Your task to perform on an android device: Open sound settings Image 0: 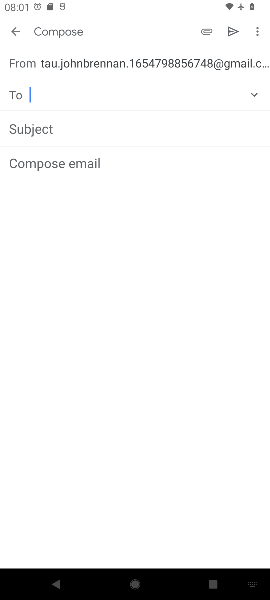
Step 0: press home button
Your task to perform on an android device: Open sound settings Image 1: 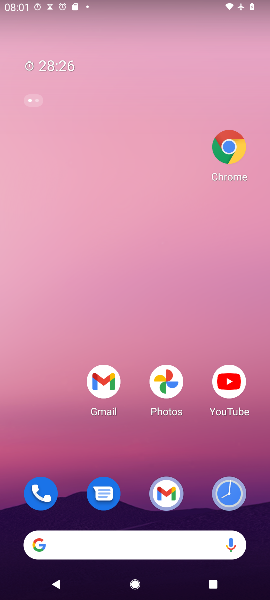
Step 1: drag from (143, 498) to (230, 105)
Your task to perform on an android device: Open sound settings Image 2: 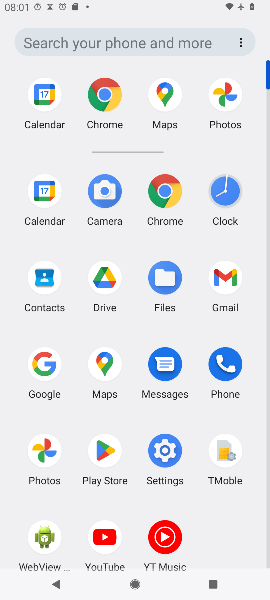
Step 2: click (170, 457)
Your task to perform on an android device: Open sound settings Image 3: 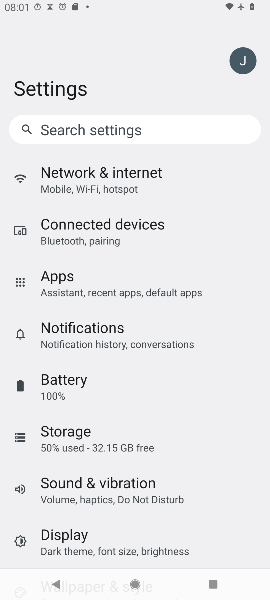
Step 3: click (104, 482)
Your task to perform on an android device: Open sound settings Image 4: 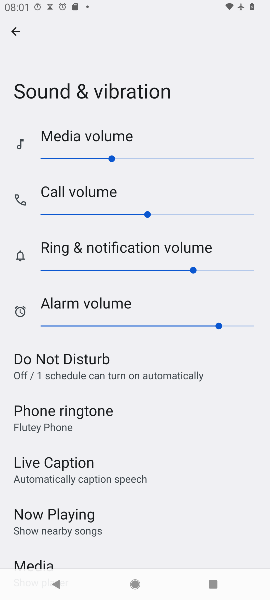
Step 4: task complete